Your task to perform on an android device: move an email to a new category in the gmail app Image 0: 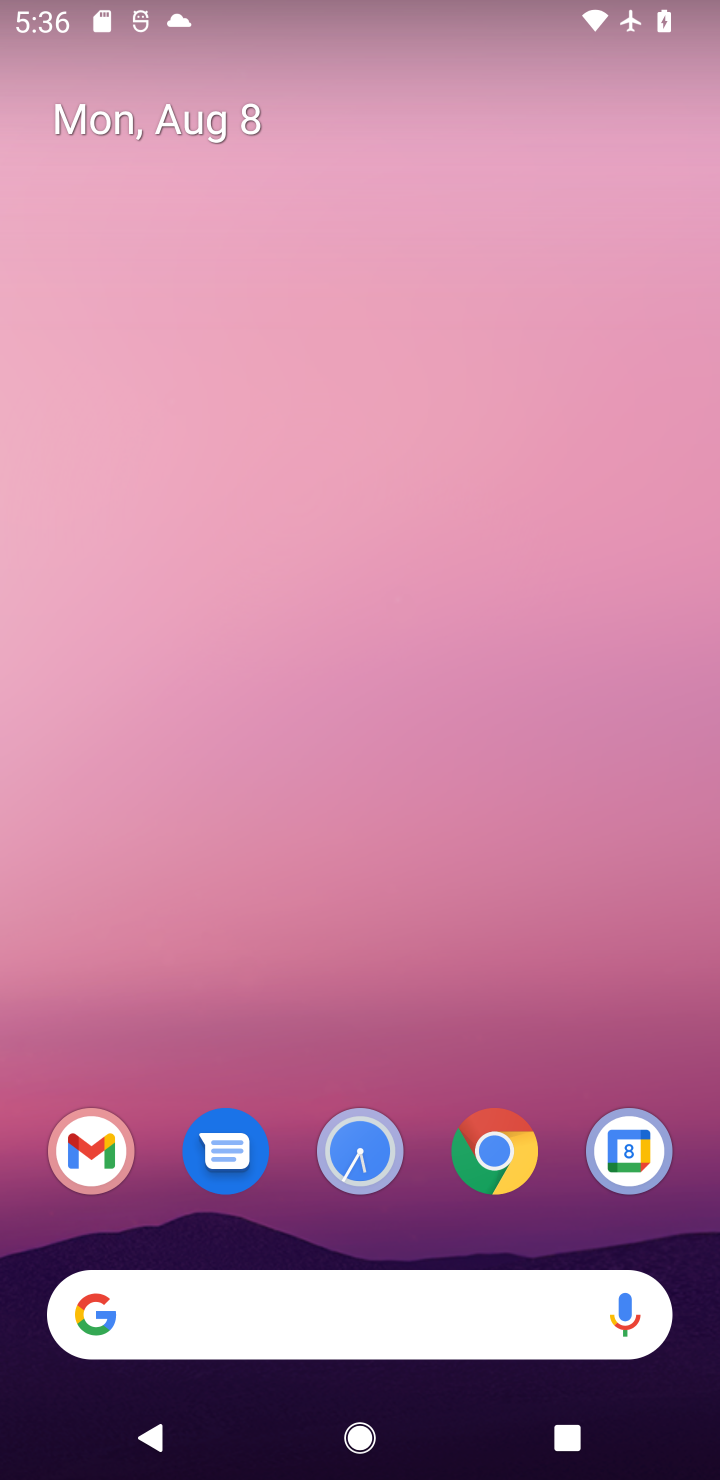
Step 0: click (57, 1162)
Your task to perform on an android device: move an email to a new category in the gmail app Image 1: 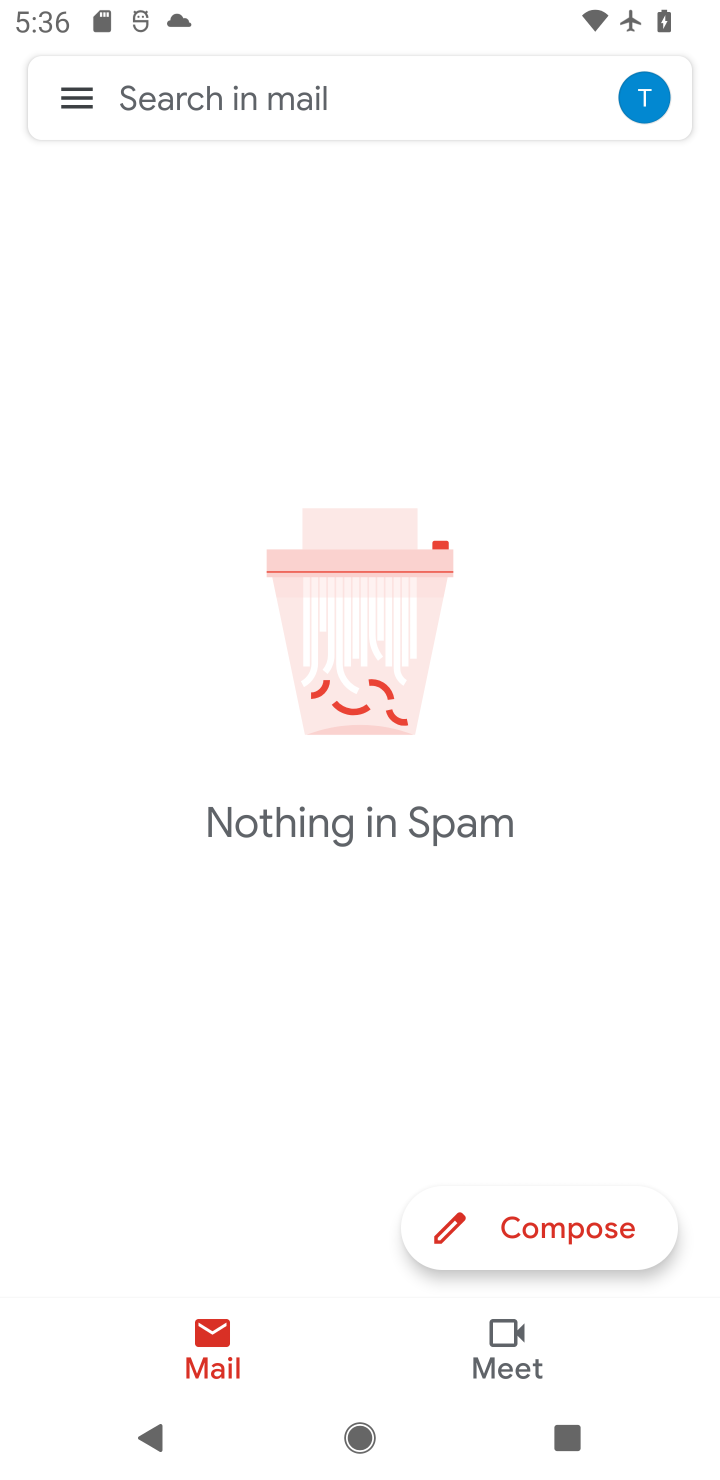
Step 1: click (91, 103)
Your task to perform on an android device: move an email to a new category in the gmail app Image 2: 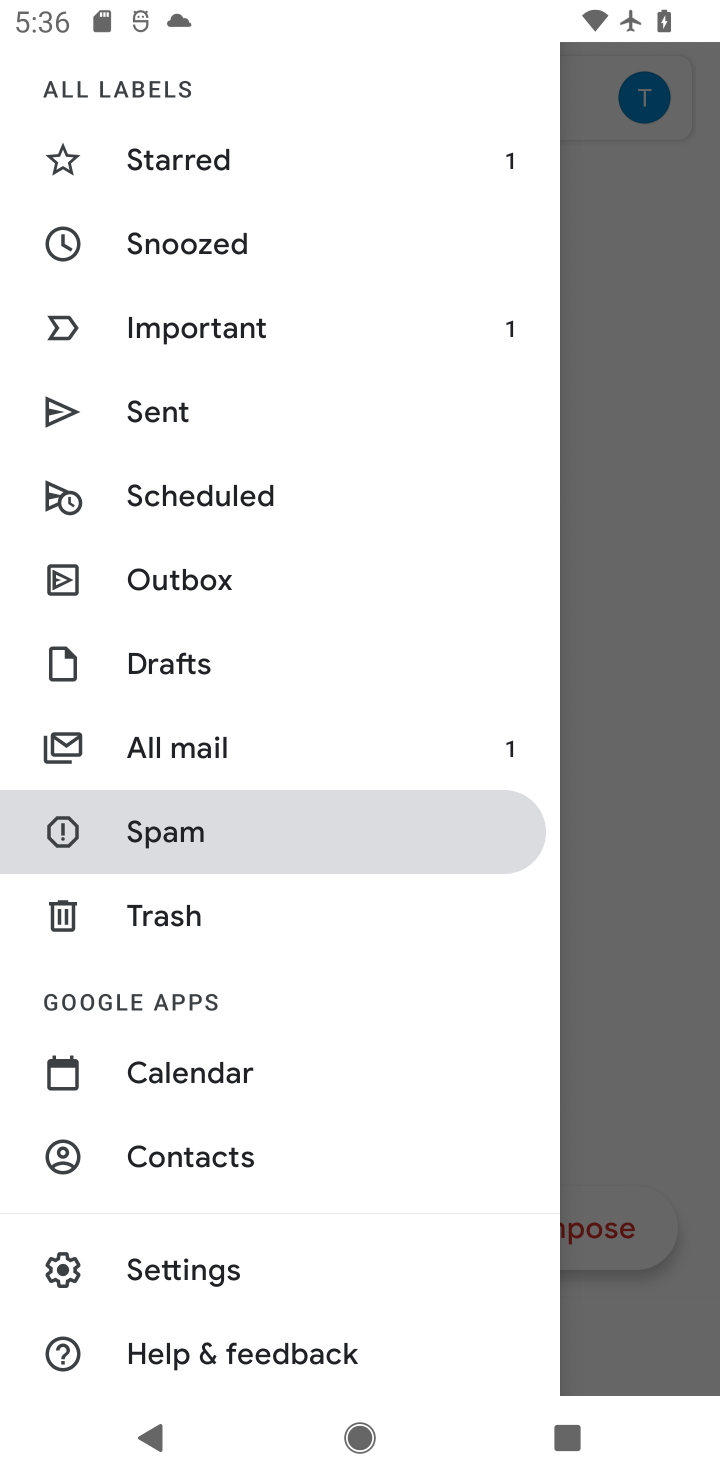
Step 2: click (203, 758)
Your task to perform on an android device: move an email to a new category in the gmail app Image 3: 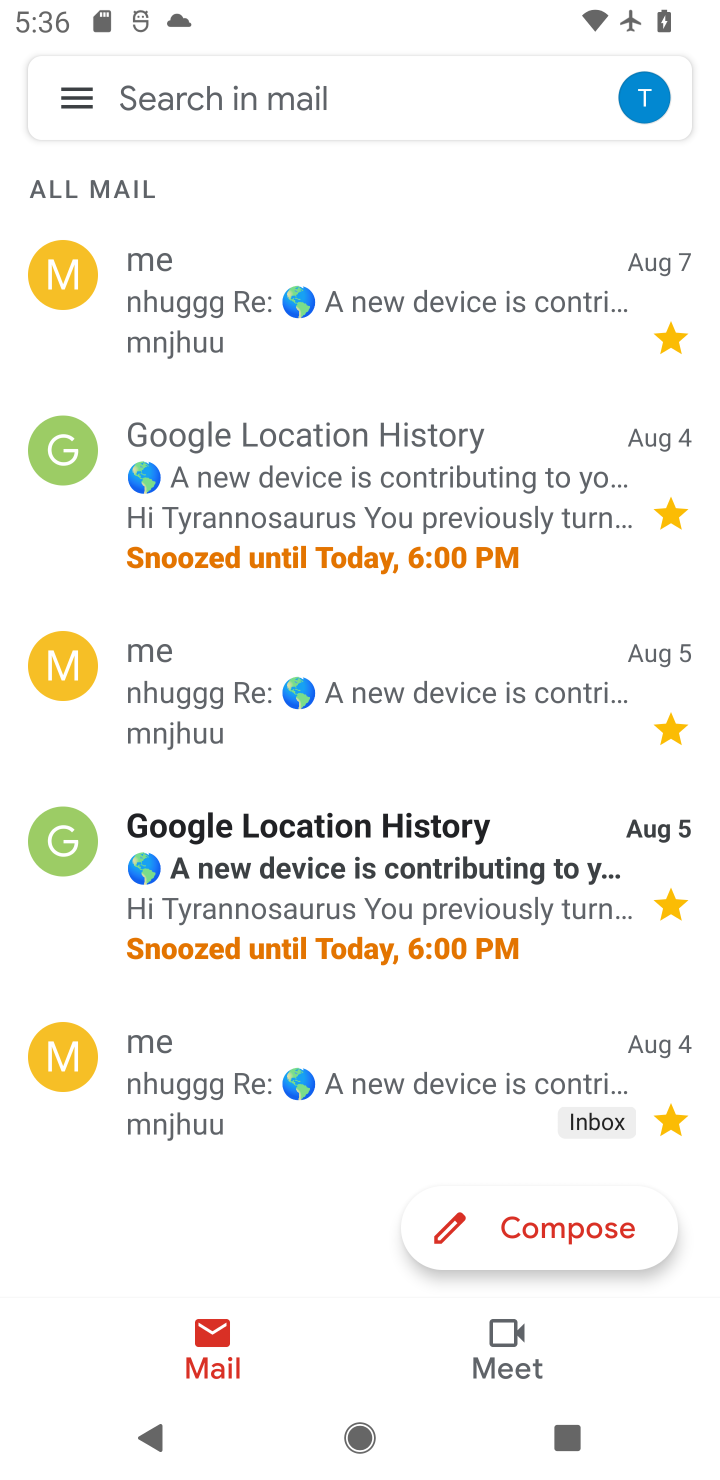
Step 3: click (376, 471)
Your task to perform on an android device: move an email to a new category in the gmail app Image 4: 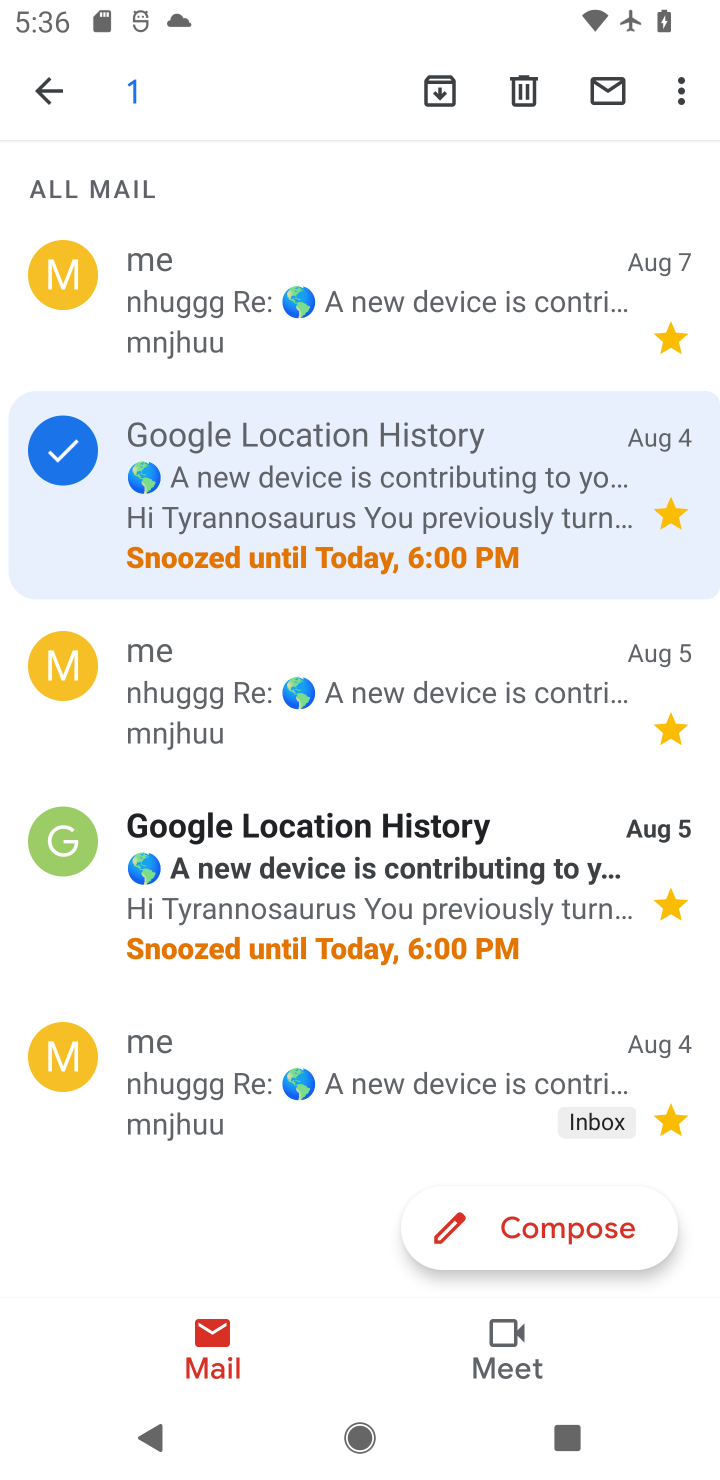
Step 4: click (674, 98)
Your task to perform on an android device: move an email to a new category in the gmail app Image 5: 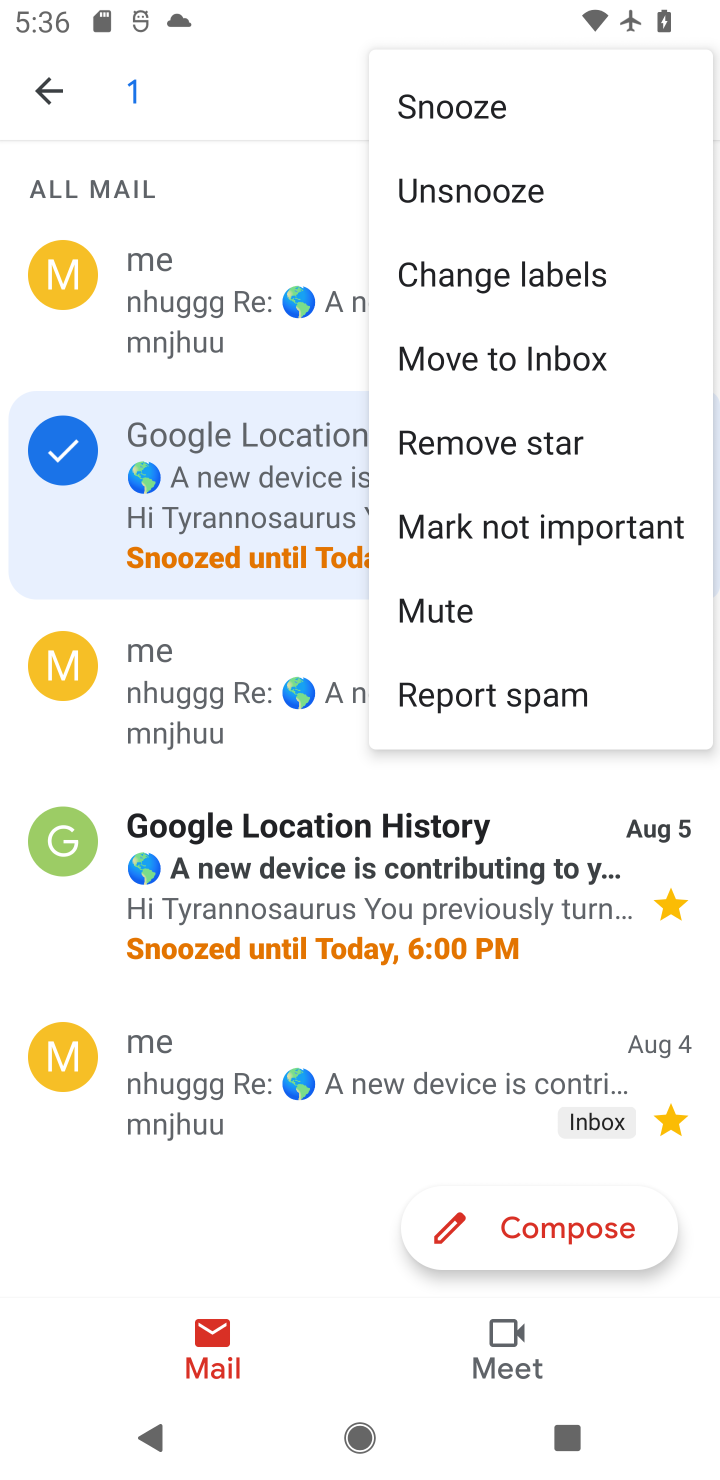
Step 5: click (588, 363)
Your task to perform on an android device: move an email to a new category in the gmail app Image 6: 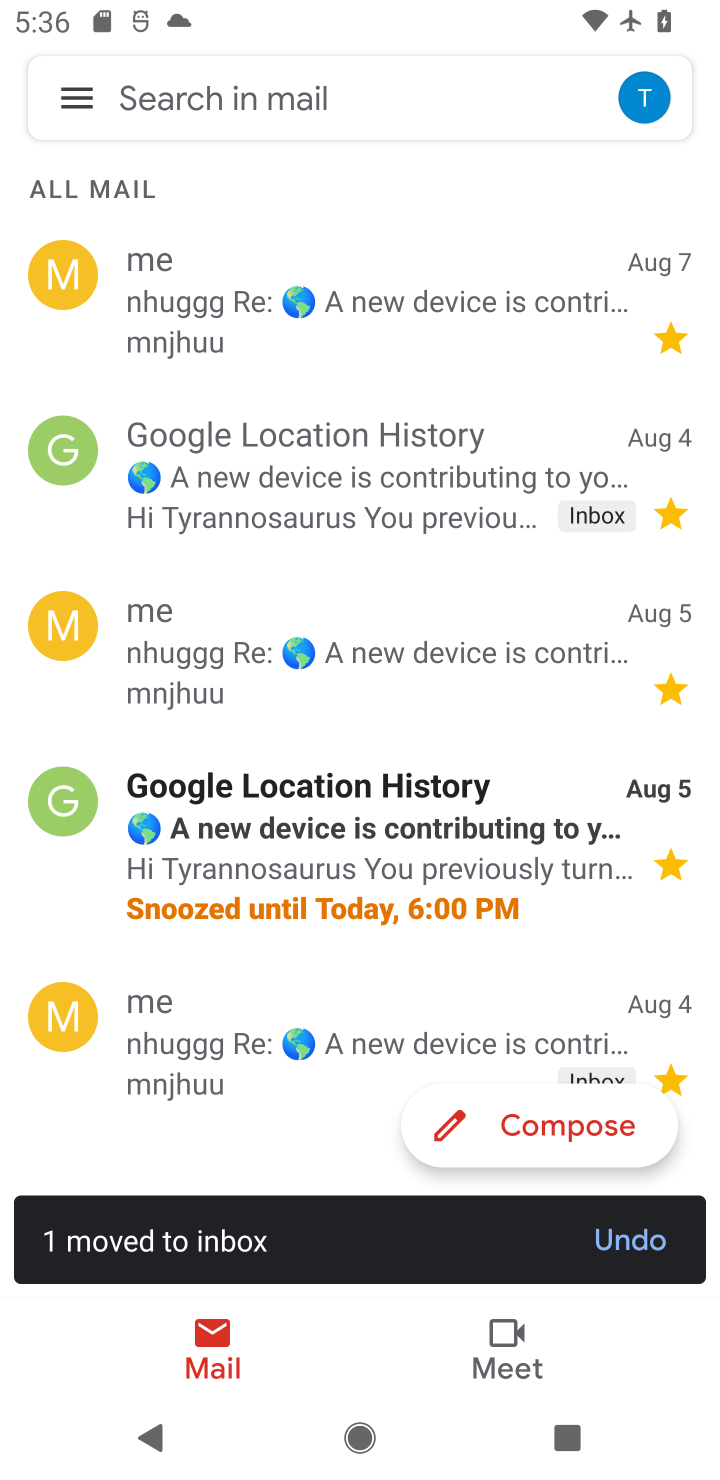
Step 6: task complete